Your task to perform on an android device: Set the phone to "Do not disturb". Image 0: 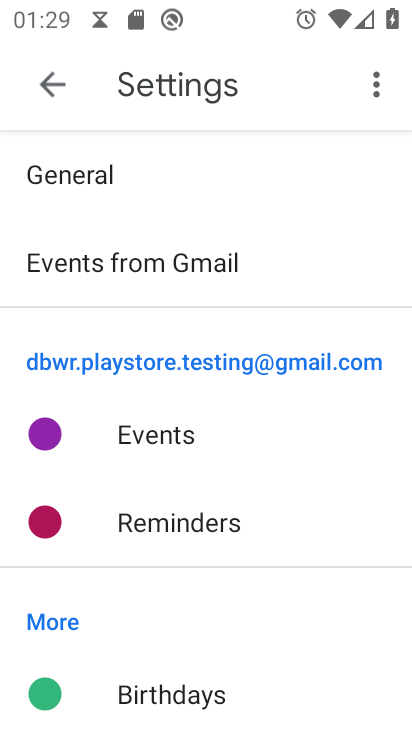
Step 0: press home button
Your task to perform on an android device: Set the phone to "Do not disturb". Image 1: 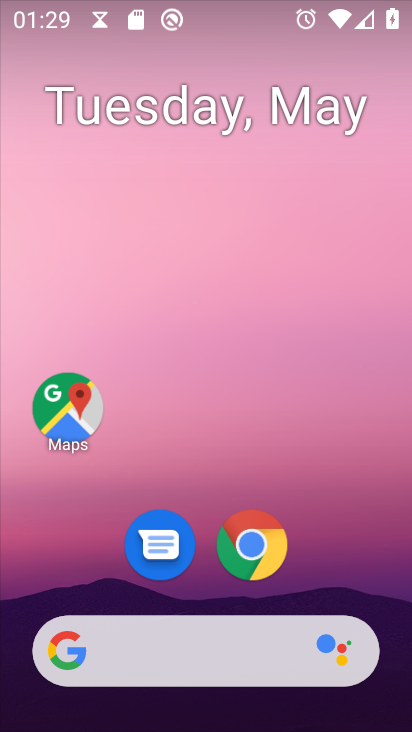
Step 1: drag from (345, 571) to (398, 5)
Your task to perform on an android device: Set the phone to "Do not disturb". Image 2: 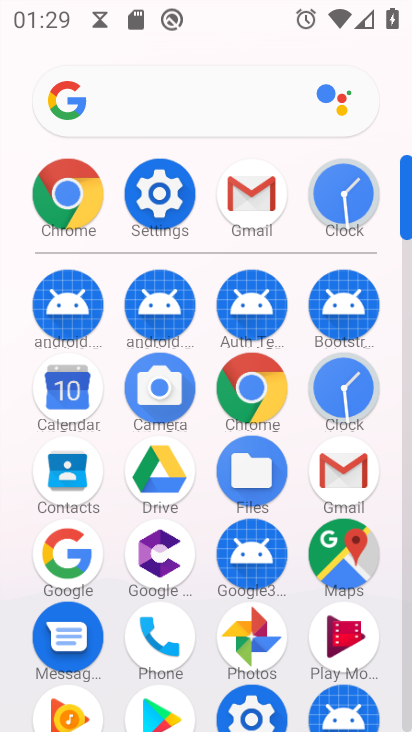
Step 2: click (149, 194)
Your task to perform on an android device: Set the phone to "Do not disturb". Image 3: 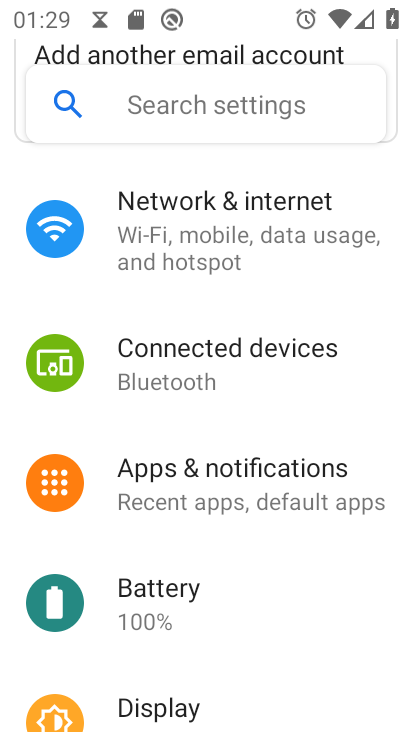
Step 3: drag from (265, 607) to (266, 468)
Your task to perform on an android device: Set the phone to "Do not disturb". Image 4: 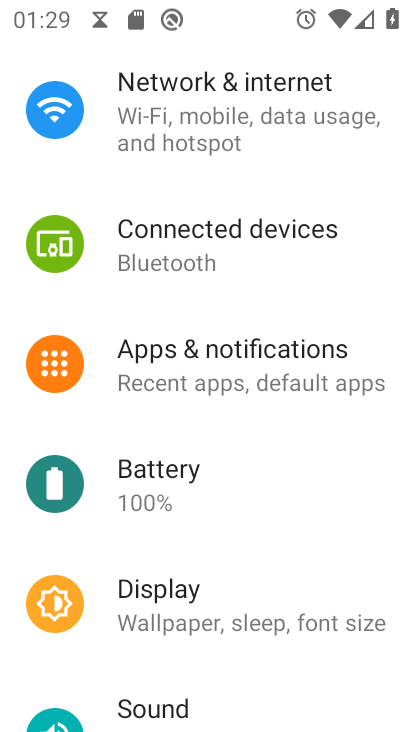
Step 4: drag from (257, 644) to (256, 448)
Your task to perform on an android device: Set the phone to "Do not disturb". Image 5: 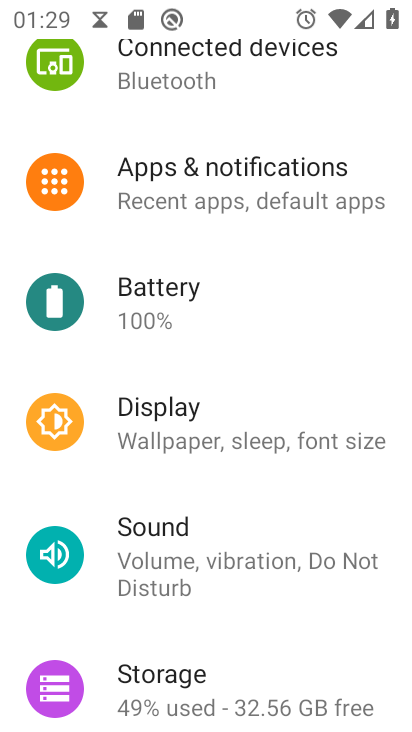
Step 5: click (206, 552)
Your task to perform on an android device: Set the phone to "Do not disturb". Image 6: 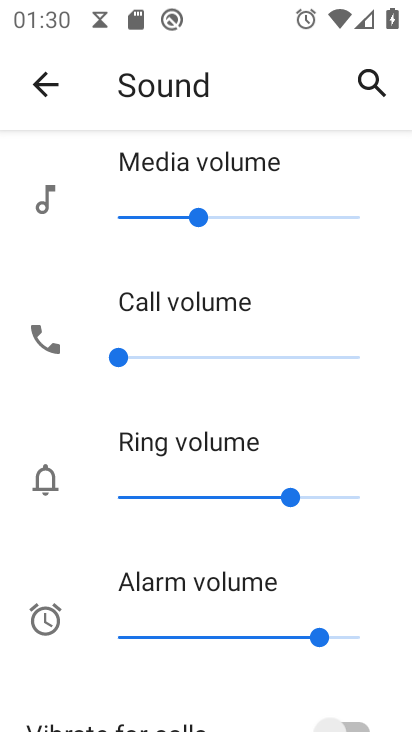
Step 6: drag from (204, 672) to (217, 458)
Your task to perform on an android device: Set the phone to "Do not disturb". Image 7: 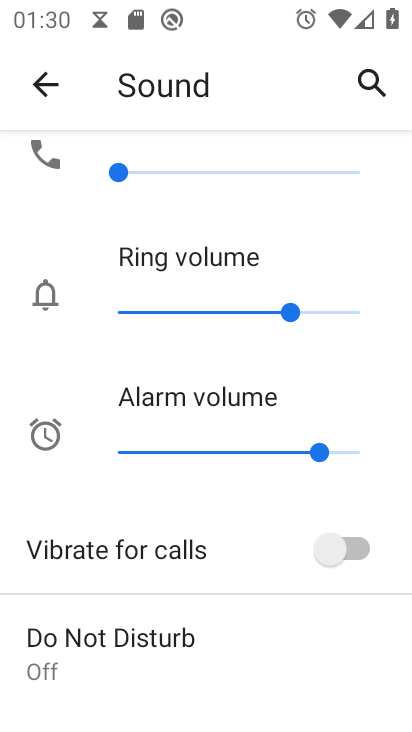
Step 7: click (155, 685)
Your task to perform on an android device: Set the phone to "Do not disturb". Image 8: 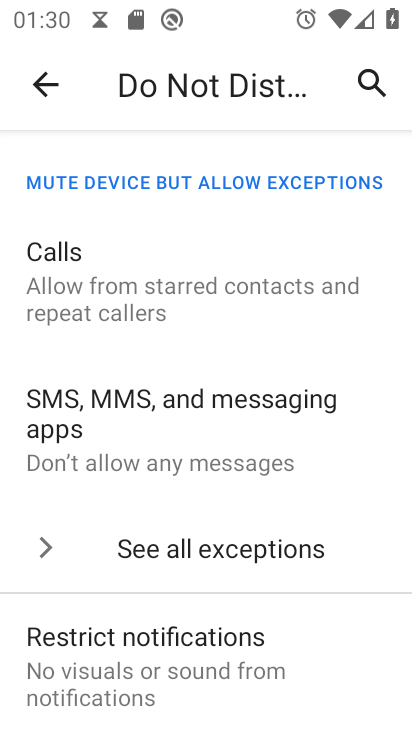
Step 8: drag from (217, 669) to (214, 537)
Your task to perform on an android device: Set the phone to "Do not disturb". Image 9: 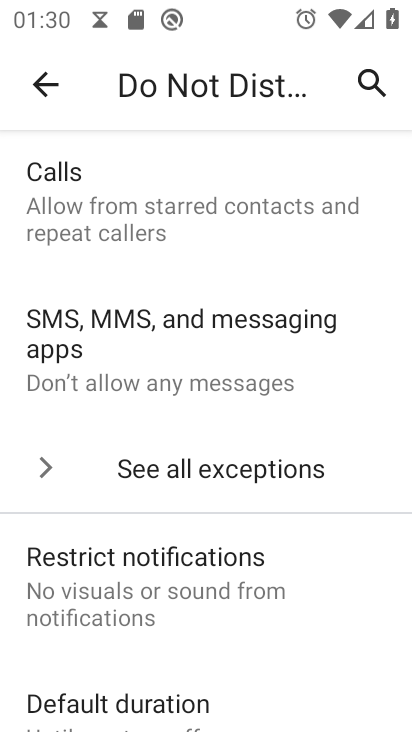
Step 9: drag from (93, 666) to (146, 226)
Your task to perform on an android device: Set the phone to "Do not disturb". Image 10: 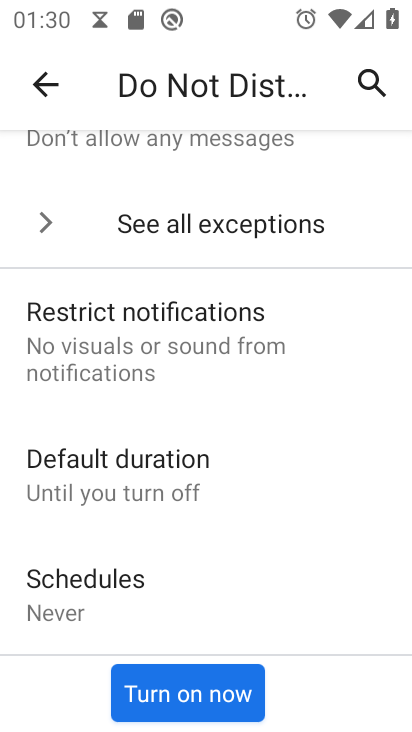
Step 10: click (185, 686)
Your task to perform on an android device: Set the phone to "Do not disturb". Image 11: 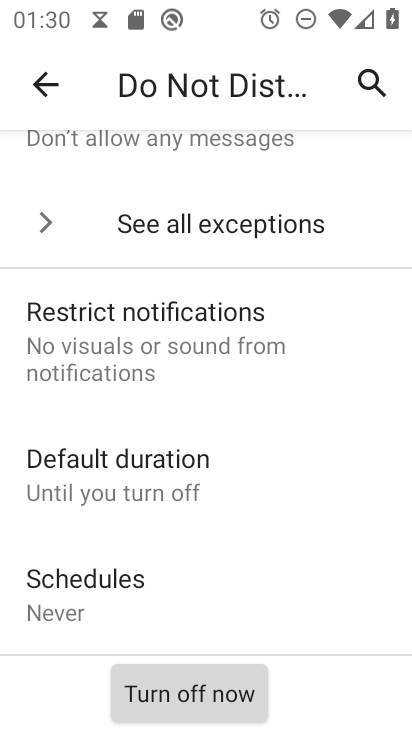
Step 11: task complete